Your task to perform on an android device: change keyboard looks Image 0: 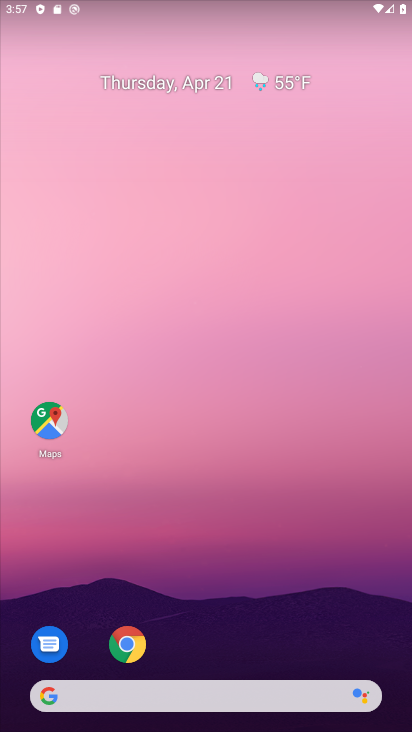
Step 0: drag from (183, 695) to (308, 119)
Your task to perform on an android device: change keyboard looks Image 1: 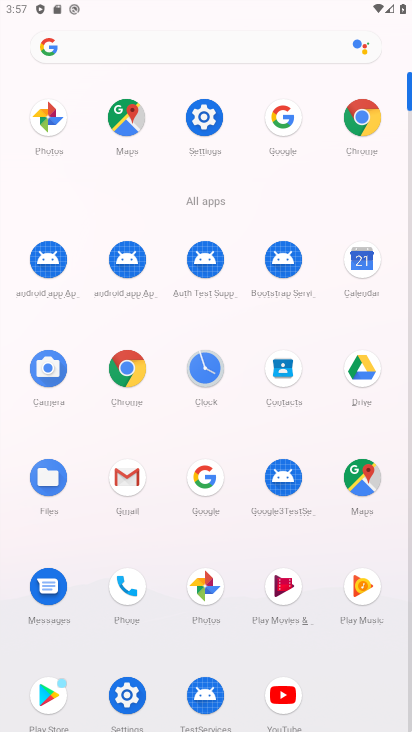
Step 1: click (196, 128)
Your task to perform on an android device: change keyboard looks Image 2: 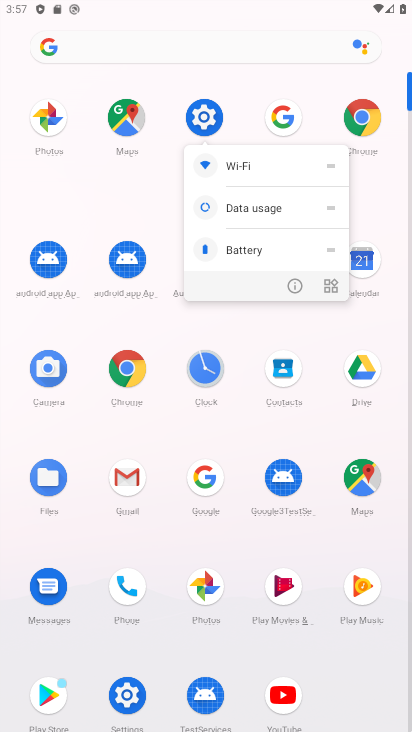
Step 2: click (207, 123)
Your task to perform on an android device: change keyboard looks Image 3: 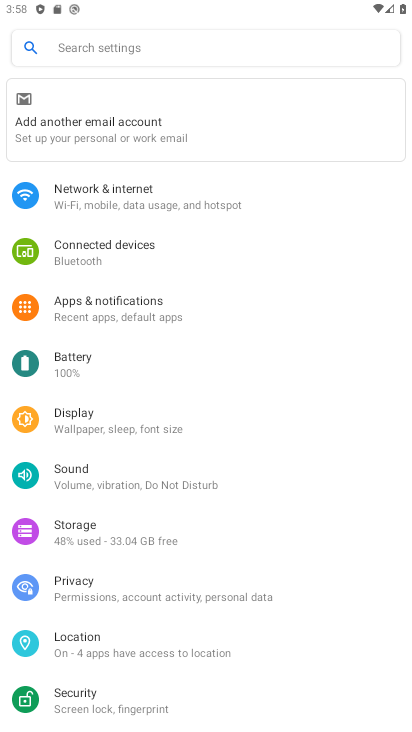
Step 3: drag from (181, 588) to (393, 140)
Your task to perform on an android device: change keyboard looks Image 4: 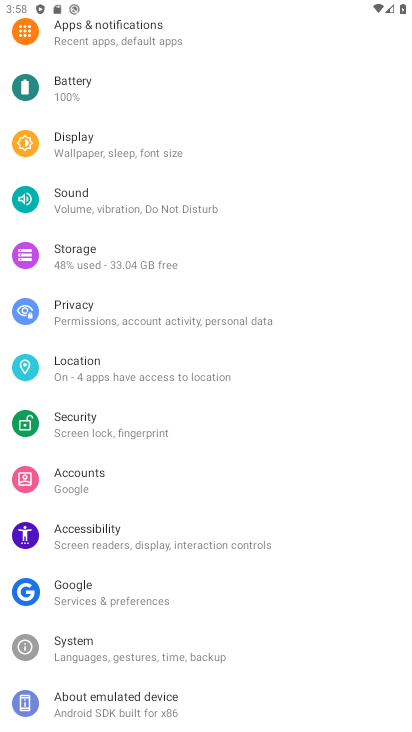
Step 4: click (98, 650)
Your task to perform on an android device: change keyboard looks Image 5: 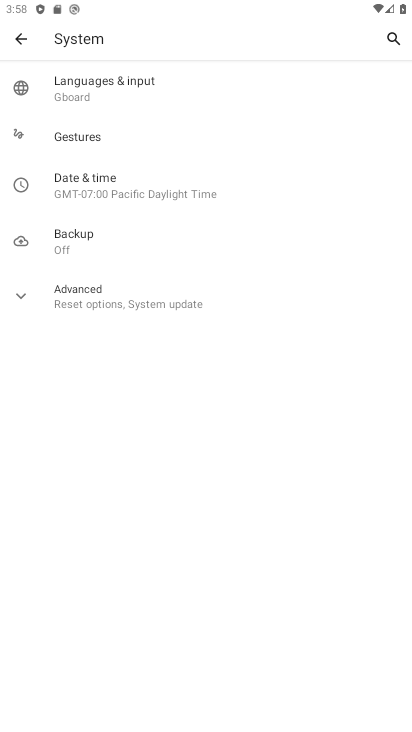
Step 5: click (119, 92)
Your task to perform on an android device: change keyboard looks Image 6: 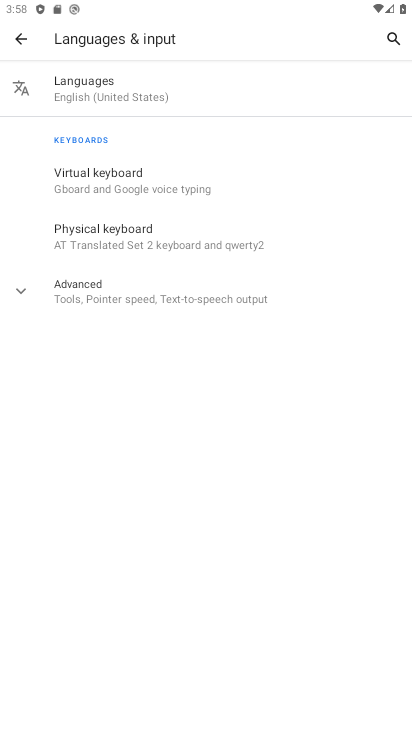
Step 6: click (114, 181)
Your task to perform on an android device: change keyboard looks Image 7: 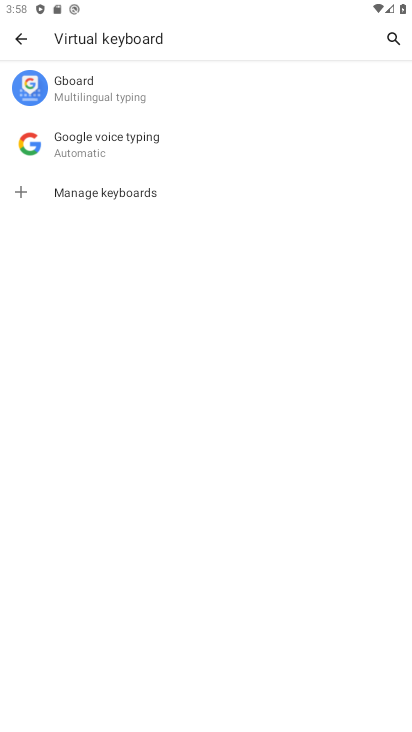
Step 7: click (91, 95)
Your task to perform on an android device: change keyboard looks Image 8: 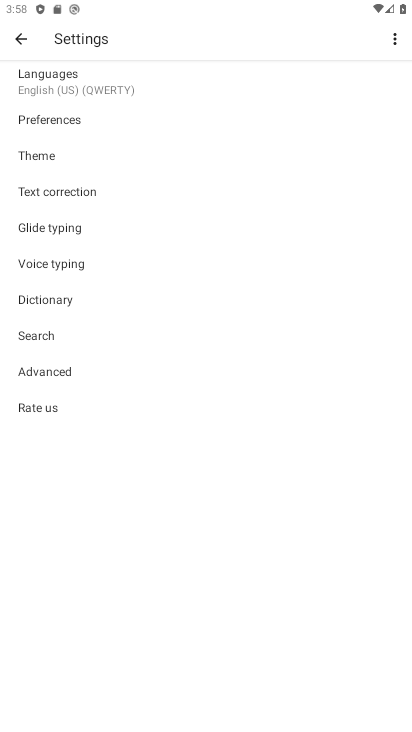
Step 8: click (39, 153)
Your task to perform on an android device: change keyboard looks Image 9: 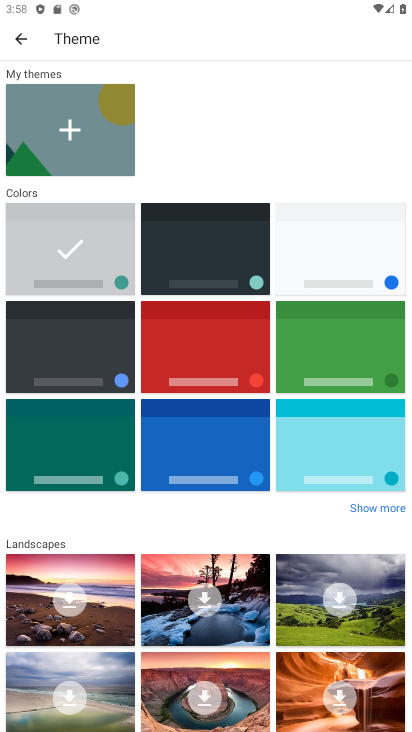
Step 9: click (343, 445)
Your task to perform on an android device: change keyboard looks Image 10: 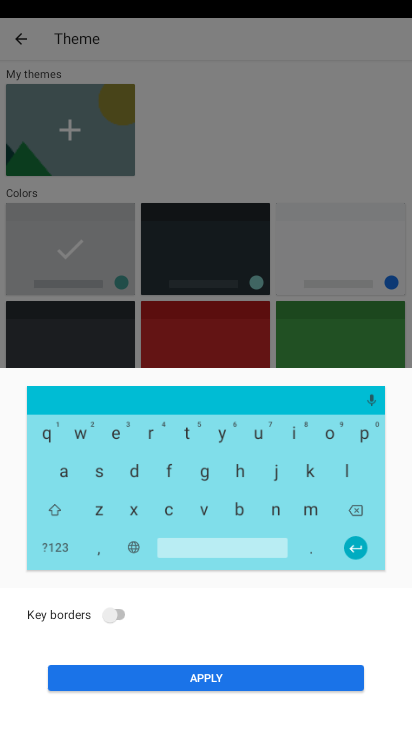
Step 10: click (211, 681)
Your task to perform on an android device: change keyboard looks Image 11: 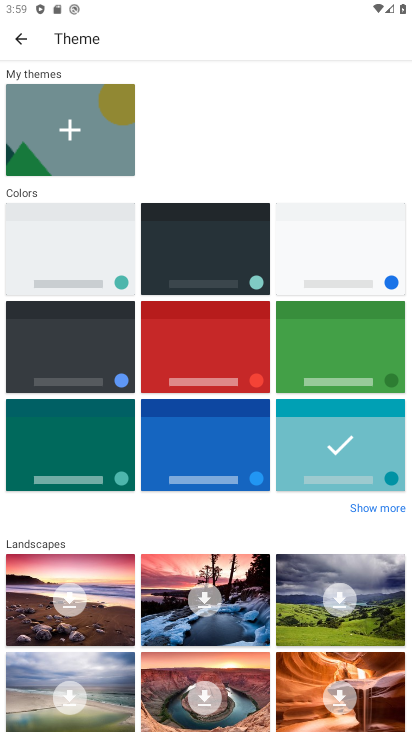
Step 11: task complete